Your task to perform on an android device: change the clock display to analog Image 0: 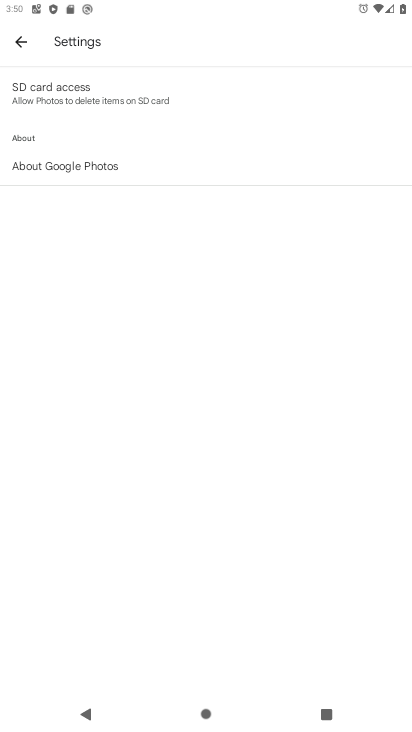
Step 0: press back button
Your task to perform on an android device: change the clock display to analog Image 1: 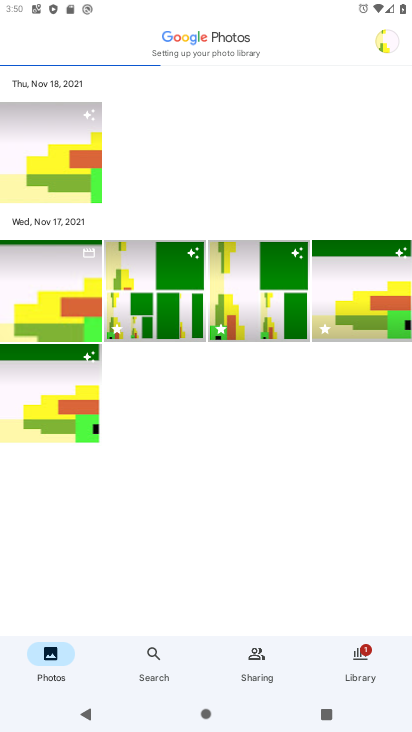
Step 1: press back button
Your task to perform on an android device: change the clock display to analog Image 2: 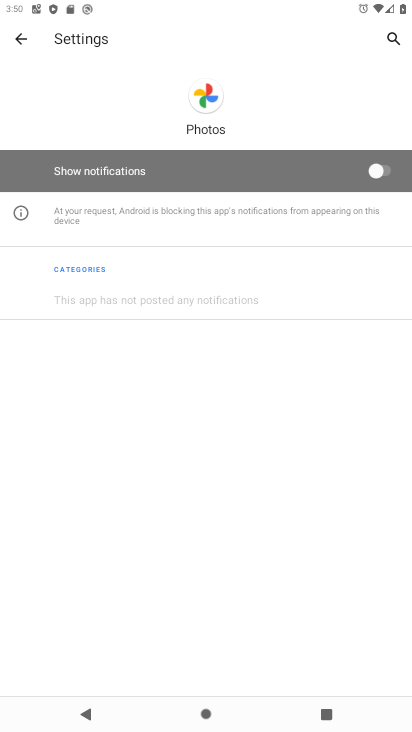
Step 2: press back button
Your task to perform on an android device: change the clock display to analog Image 3: 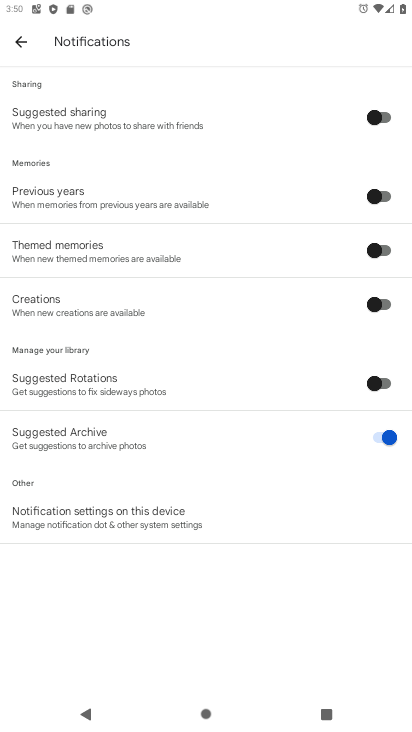
Step 3: press back button
Your task to perform on an android device: change the clock display to analog Image 4: 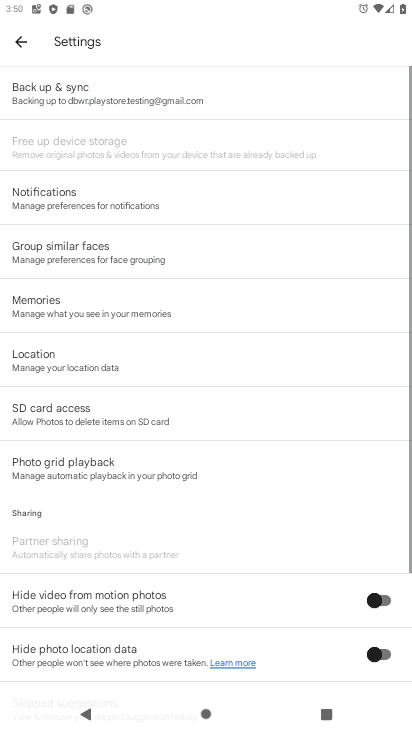
Step 4: press back button
Your task to perform on an android device: change the clock display to analog Image 5: 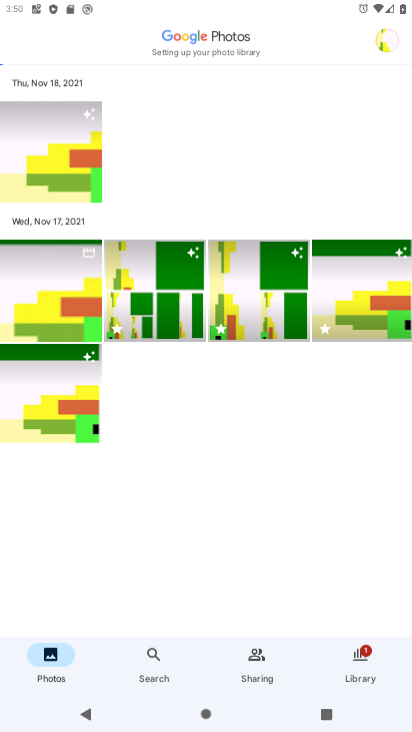
Step 5: press back button
Your task to perform on an android device: change the clock display to analog Image 6: 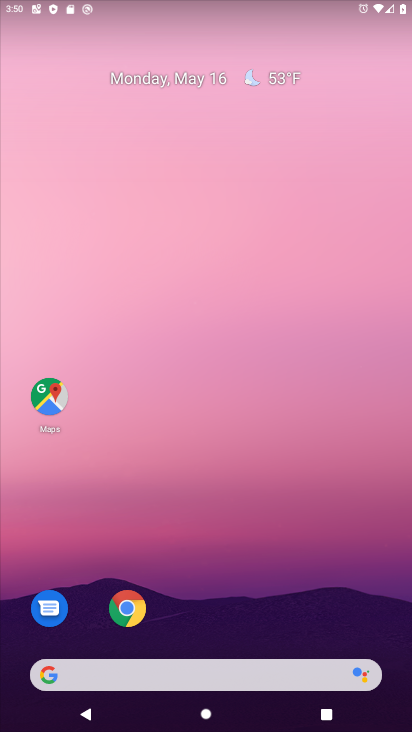
Step 6: drag from (281, 595) to (258, 145)
Your task to perform on an android device: change the clock display to analog Image 7: 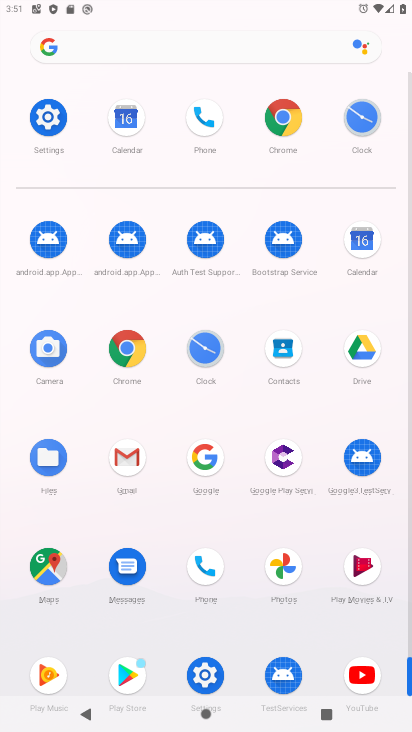
Step 7: click (201, 349)
Your task to perform on an android device: change the clock display to analog Image 8: 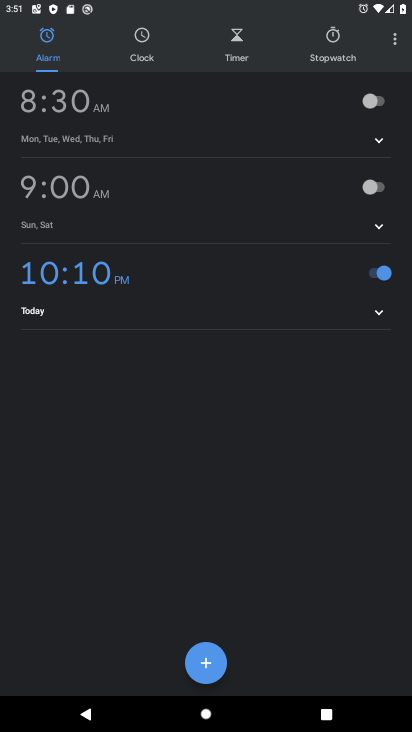
Step 8: click (397, 42)
Your task to perform on an android device: change the clock display to analog Image 9: 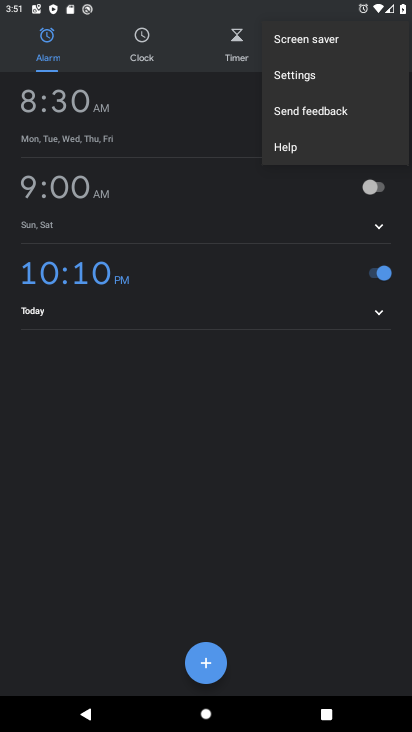
Step 9: click (308, 79)
Your task to perform on an android device: change the clock display to analog Image 10: 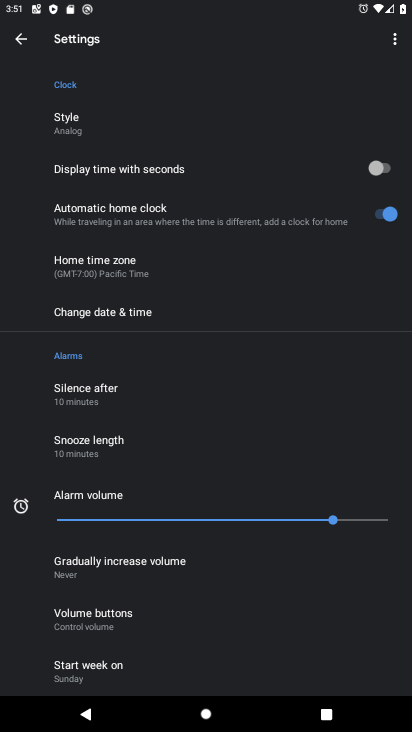
Step 10: click (79, 126)
Your task to perform on an android device: change the clock display to analog Image 11: 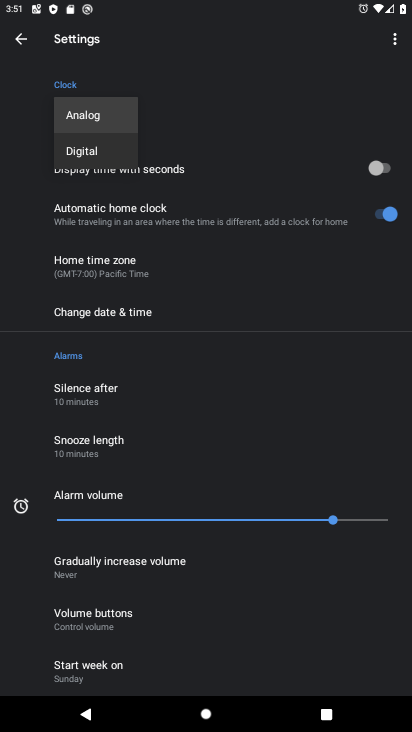
Step 11: click (85, 116)
Your task to perform on an android device: change the clock display to analog Image 12: 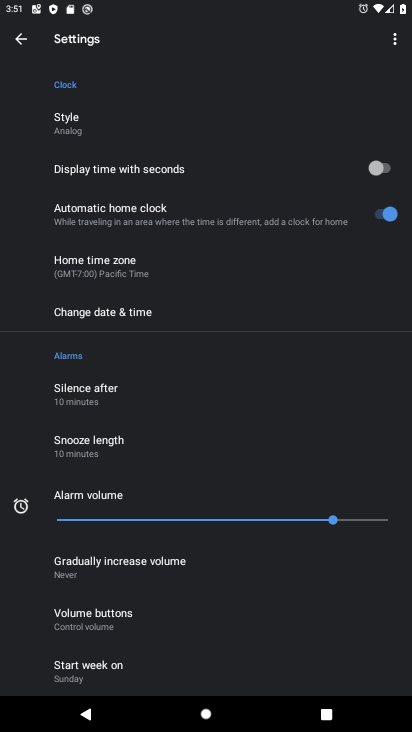
Step 12: task complete